Your task to perform on an android device: turn off picture-in-picture Image 0: 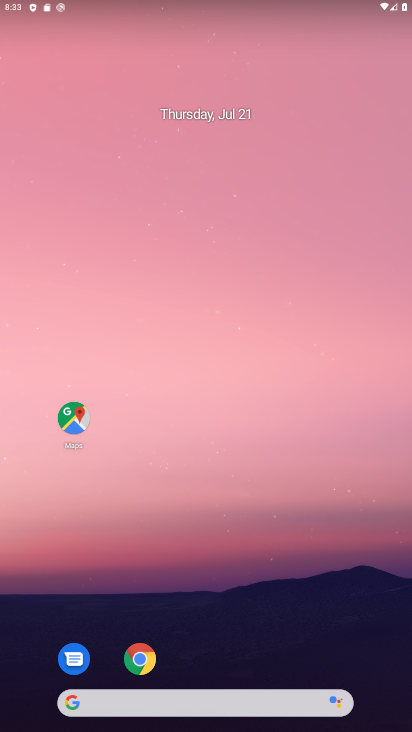
Step 0: click (139, 663)
Your task to perform on an android device: turn off picture-in-picture Image 1: 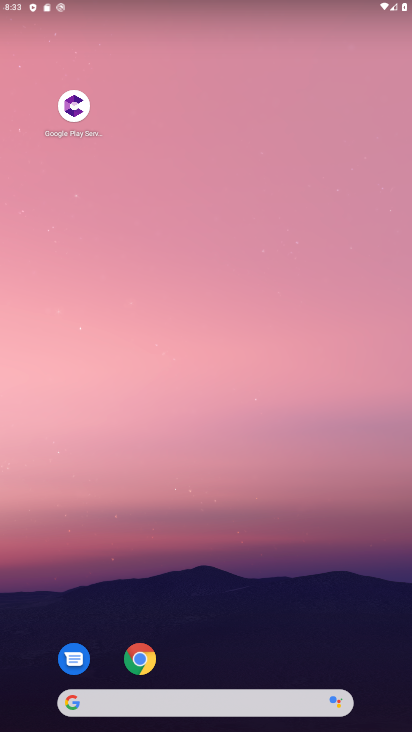
Step 1: click (139, 658)
Your task to perform on an android device: turn off picture-in-picture Image 2: 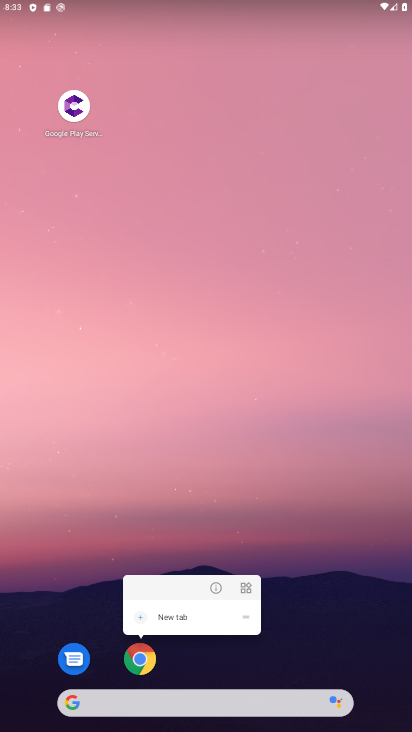
Step 2: click (216, 580)
Your task to perform on an android device: turn off picture-in-picture Image 3: 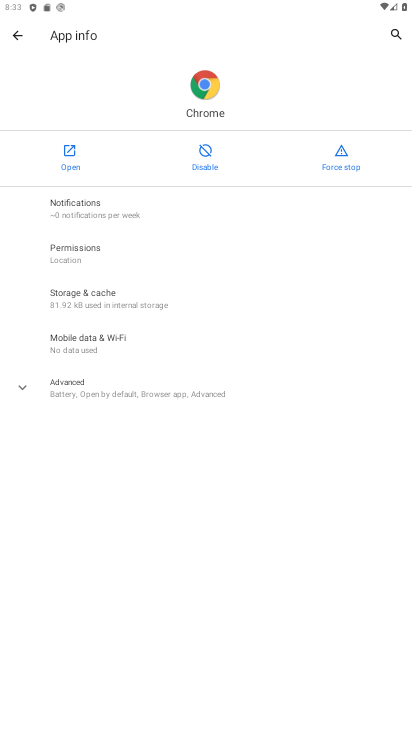
Step 3: click (156, 386)
Your task to perform on an android device: turn off picture-in-picture Image 4: 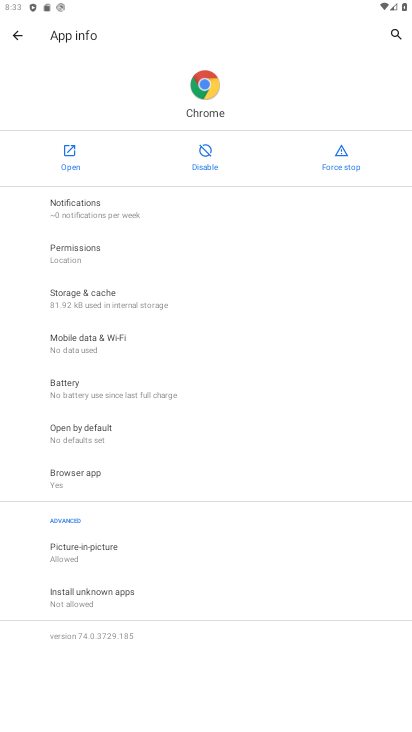
Step 4: click (134, 549)
Your task to perform on an android device: turn off picture-in-picture Image 5: 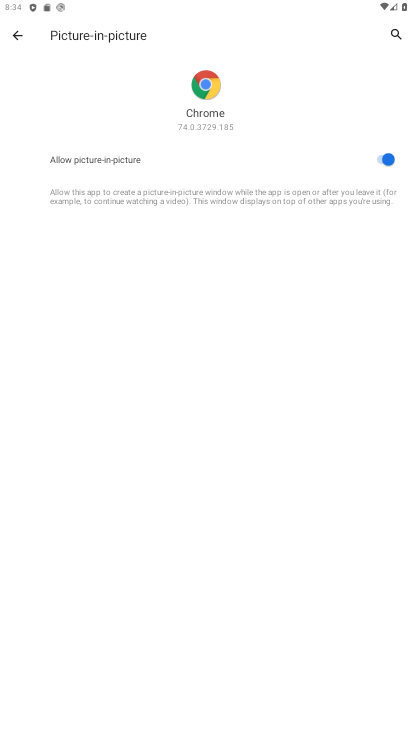
Step 5: click (385, 155)
Your task to perform on an android device: turn off picture-in-picture Image 6: 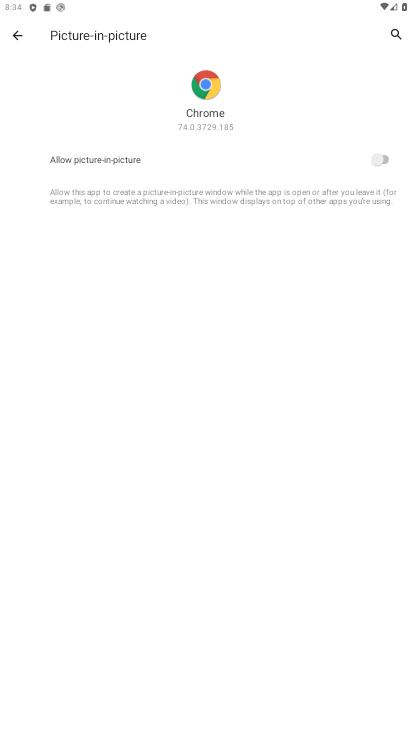
Step 6: task complete